Your task to perform on an android device: turn off improve location accuracy Image 0: 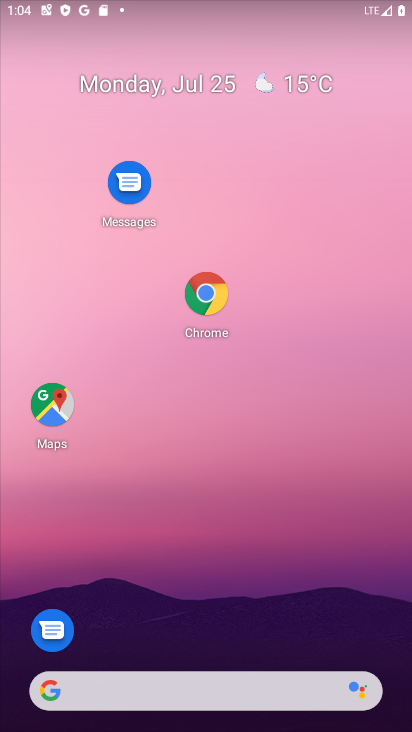
Step 0: press home button
Your task to perform on an android device: turn off improve location accuracy Image 1: 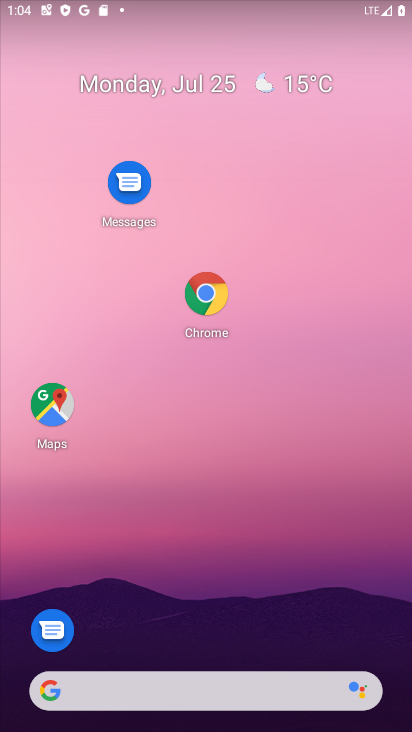
Step 1: drag from (313, 634) to (266, 0)
Your task to perform on an android device: turn off improve location accuracy Image 2: 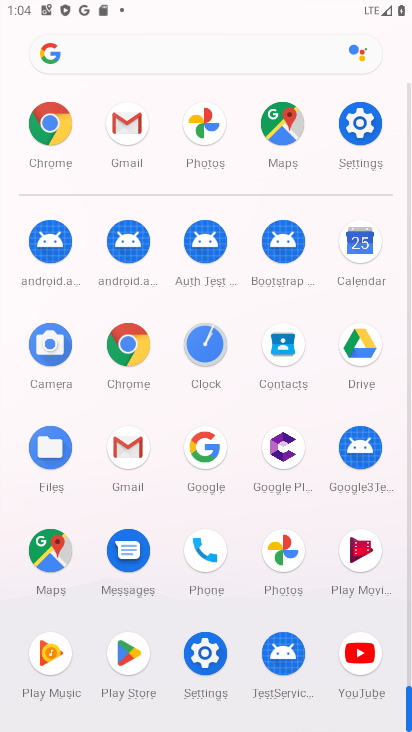
Step 2: click (193, 648)
Your task to perform on an android device: turn off improve location accuracy Image 3: 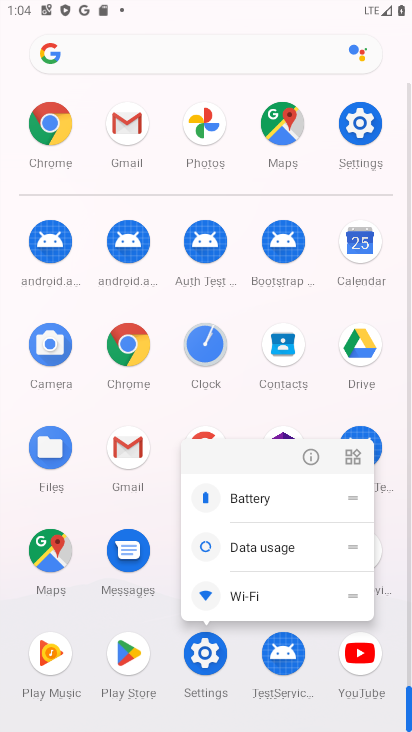
Step 3: click (219, 654)
Your task to perform on an android device: turn off improve location accuracy Image 4: 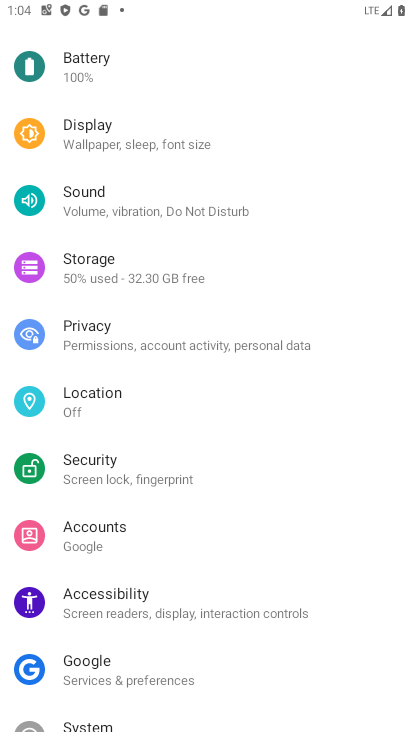
Step 4: click (143, 392)
Your task to perform on an android device: turn off improve location accuracy Image 5: 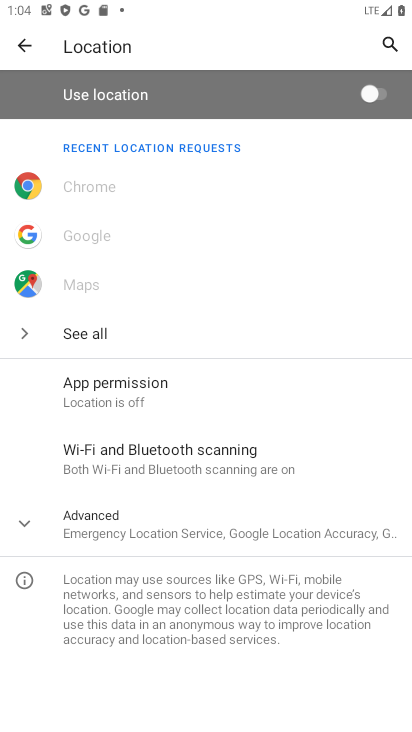
Step 5: click (121, 505)
Your task to perform on an android device: turn off improve location accuracy Image 6: 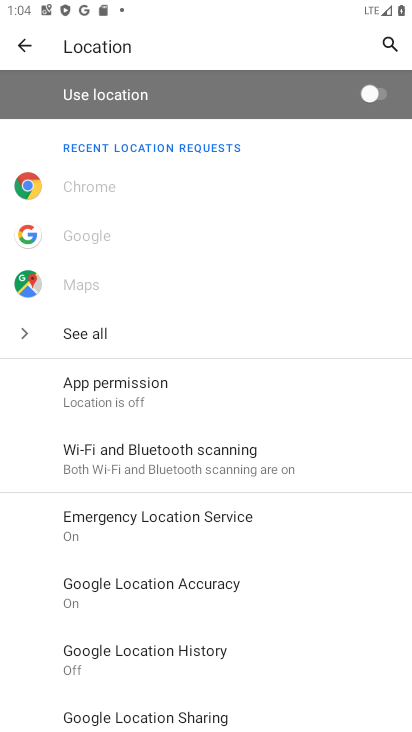
Step 6: click (143, 574)
Your task to perform on an android device: turn off improve location accuracy Image 7: 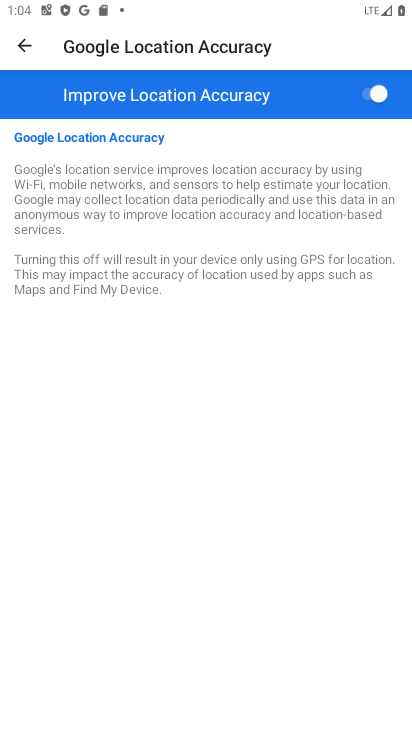
Step 7: click (273, 86)
Your task to perform on an android device: turn off improve location accuracy Image 8: 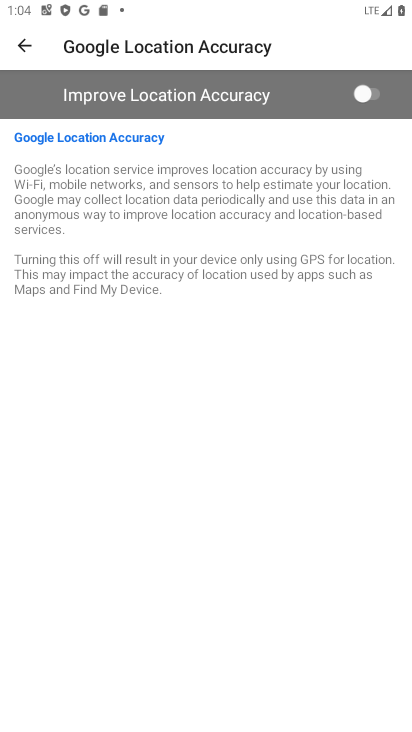
Step 8: task complete